Your task to perform on an android device: Search for pizza restaurants on Maps Image 0: 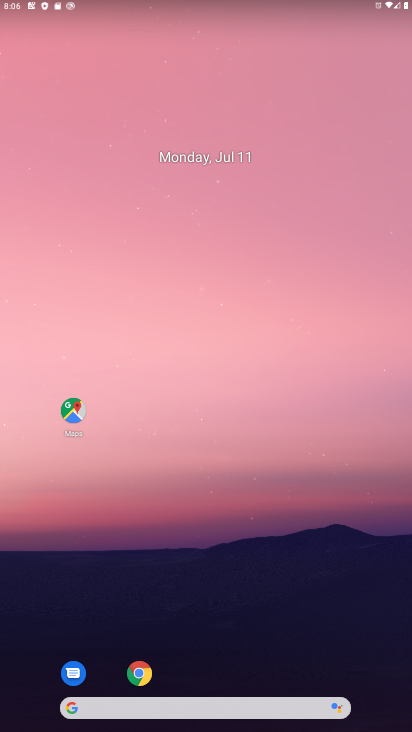
Step 0: press home button
Your task to perform on an android device: Search for pizza restaurants on Maps Image 1: 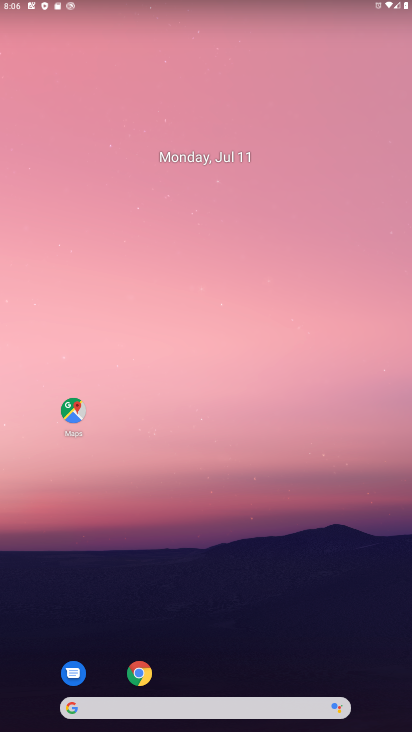
Step 1: click (68, 408)
Your task to perform on an android device: Search for pizza restaurants on Maps Image 2: 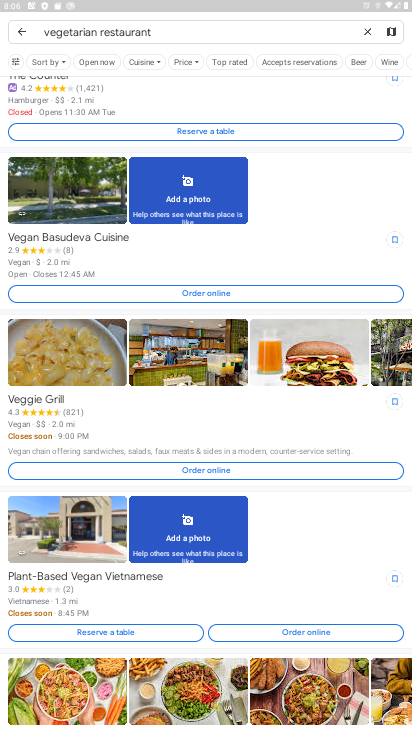
Step 2: click (365, 30)
Your task to perform on an android device: Search for pizza restaurants on Maps Image 3: 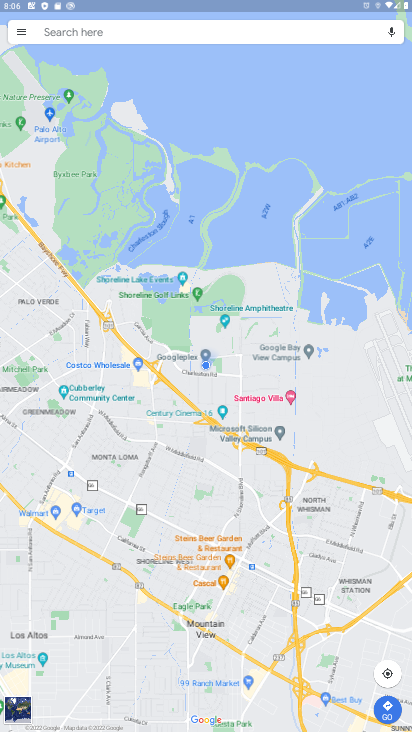
Step 3: click (107, 28)
Your task to perform on an android device: Search for pizza restaurants on Maps Image 4: 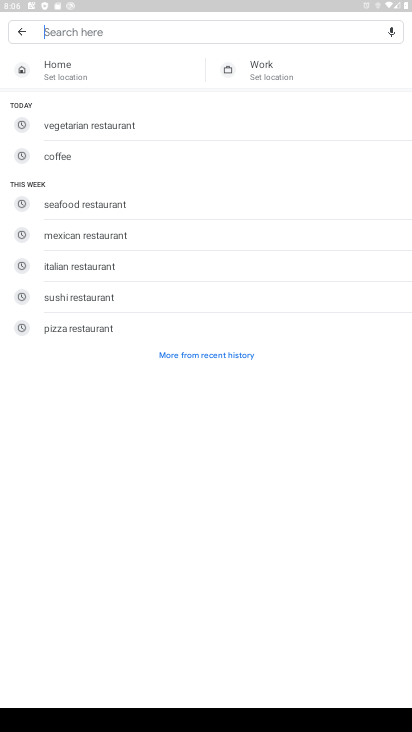
Step 4: click (90, 329)
Your task to perform on an android device: Search for pizza restaurants on Maps Image 5: 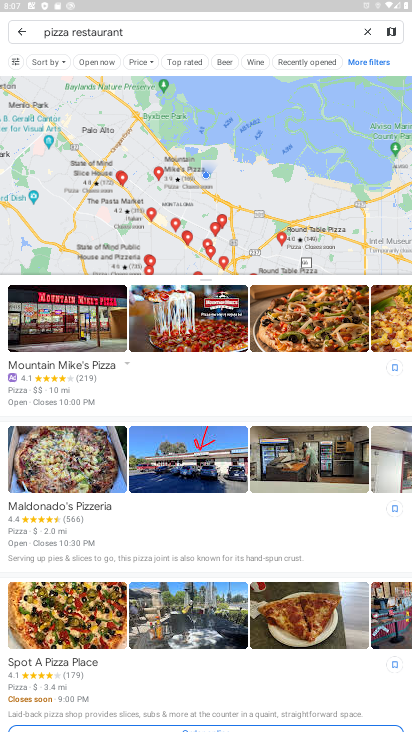
Step 5: task complete